Your task to perform on an android device: Turn on the flashlight Image 0: 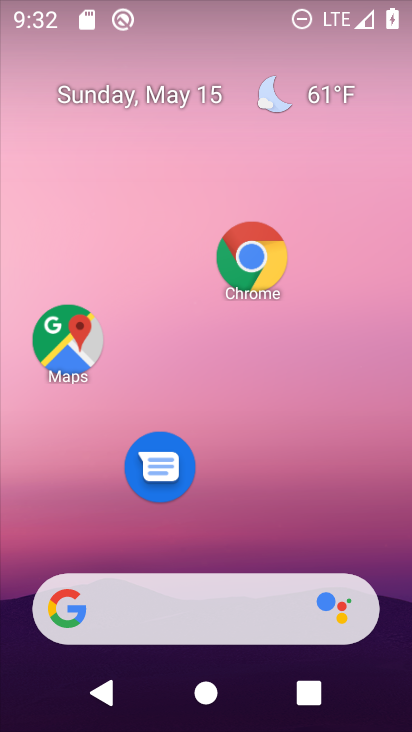
Step 0: drag from (220, 9) to (243, 588)
Your task to perform on an android device: Turn on the flashlight Image 1: 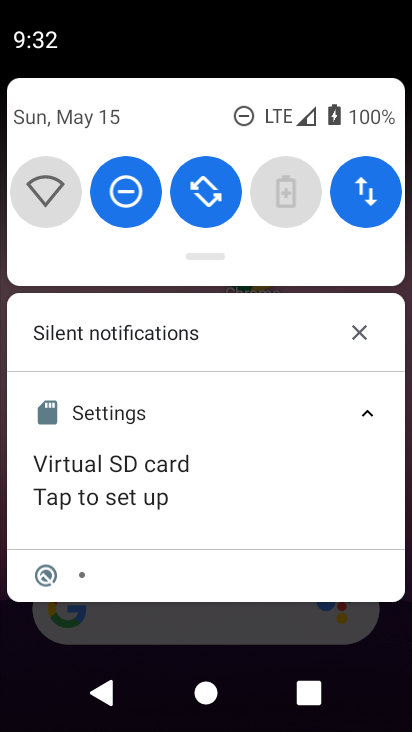
Step 1: drag from (200, 115) to (160, 643)
Your task to perform on an android device: Turn on the flashlight Image 2: 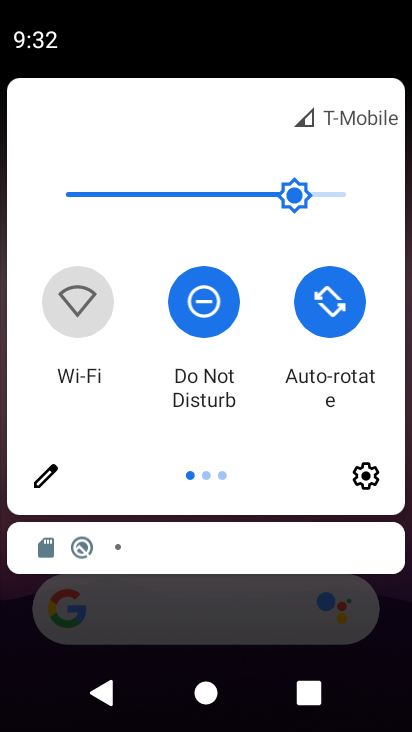
Step 2: click (373, 497)
Your task to perform on an android device: Turn on the flashlight Image 3: 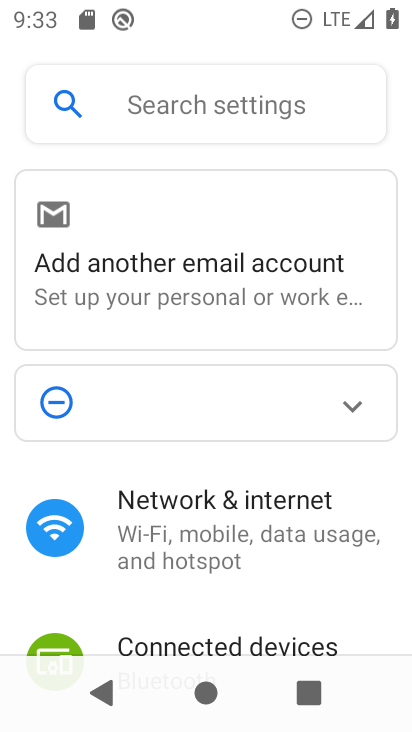
Step 3: task complete